Your task to perform on an android device: When is my next meeting? Image 0: 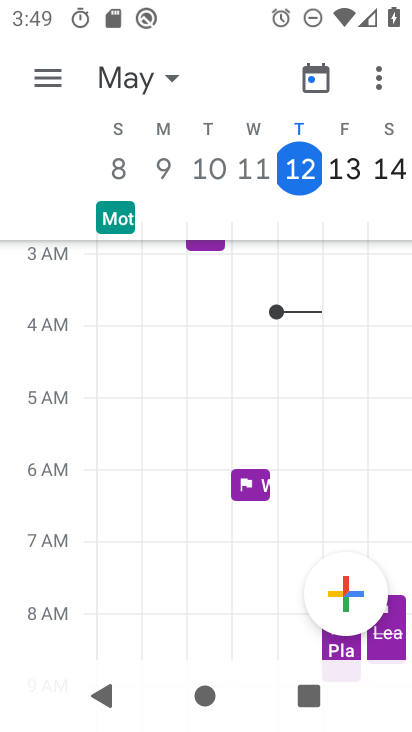
Step 0: press home button
Your task to perform on an android device: When is my next meeting? Image 1: 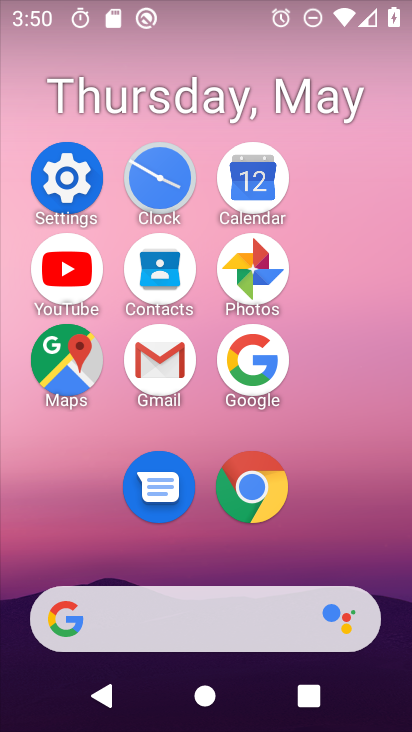
Step 1: click (257, 171)
Your task to perform on an android device: When is my next meeting? Image 2: 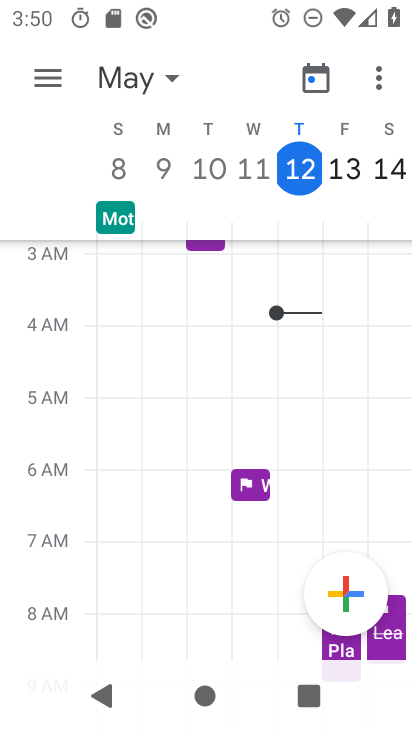
Step 2: click (355, 167)
Your task to perform on an android device: When is my next meeting? Image 3: 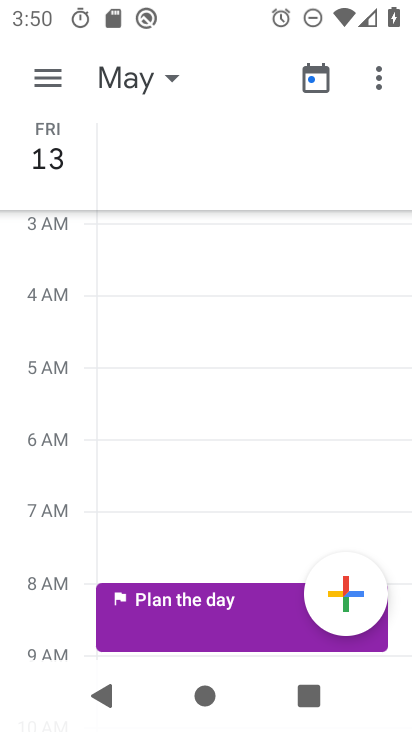
Step 3: task complete